Your task to perform on an android device: Go to sound settings Image 0: 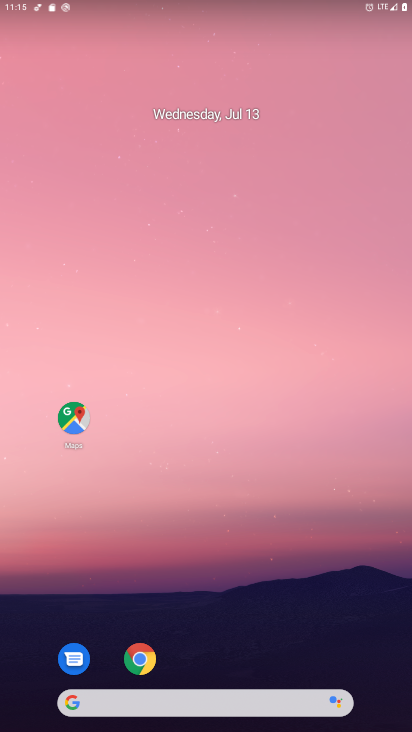
Step 0: press home button
Your task to perform on an android device: Go to sound settings Image 1: 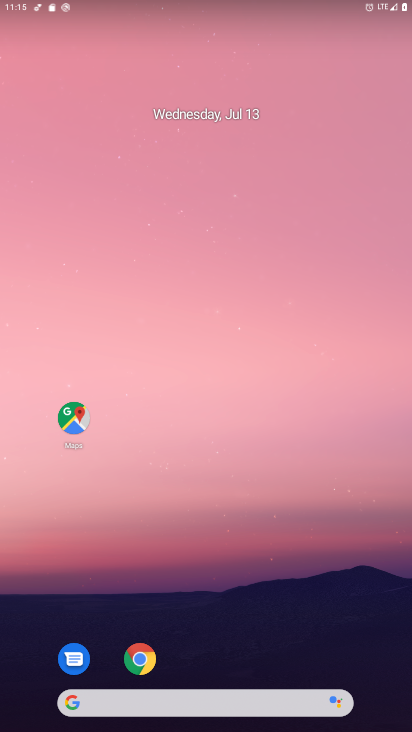
Step 1: drag from (205, 673) to (213, 28)
Your task to perform on an android device: Go to sound settings Image 2: 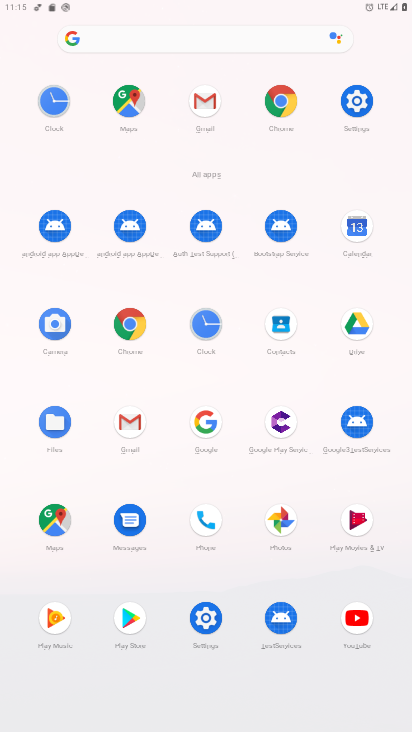
Step 2: click (356, 97)
Your task to perform on an android device: Go to sound settings Image 3: 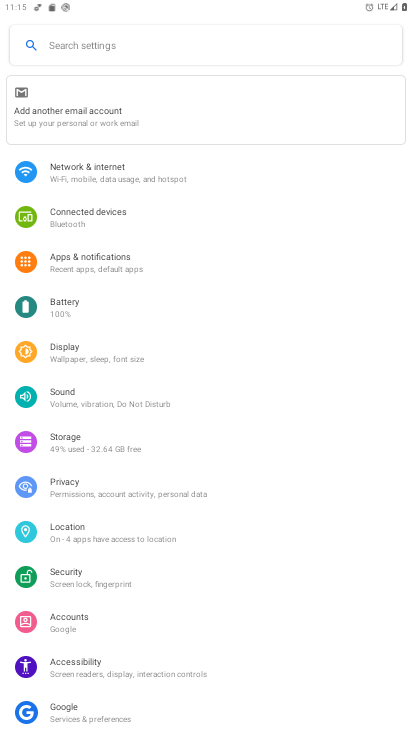
Step 3: click (42, 391)
Your task to perform on an android device: Go to sound settings Image 4: 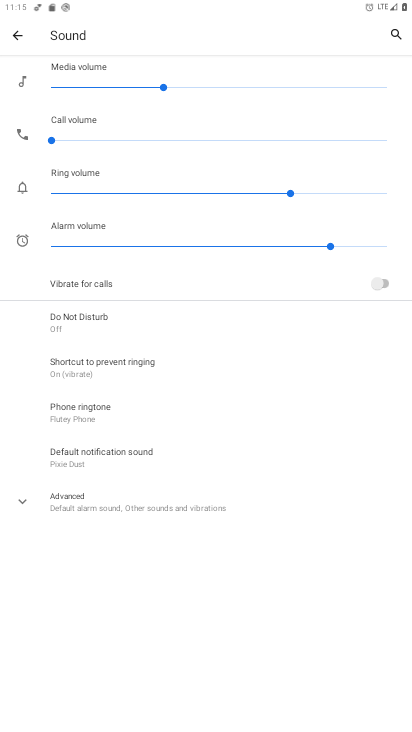
Step 4: click (20, 498)
Your task to perform on an android device: Go to sound settings Image 5: 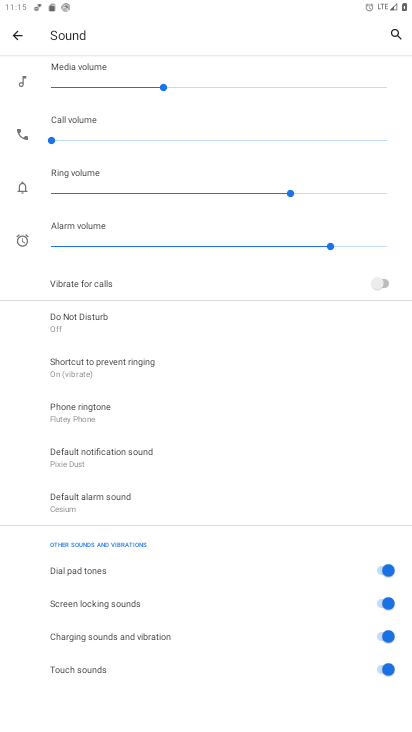
Step 5: task complete